Your task to perform on an android device: Open battery settings Image 0: 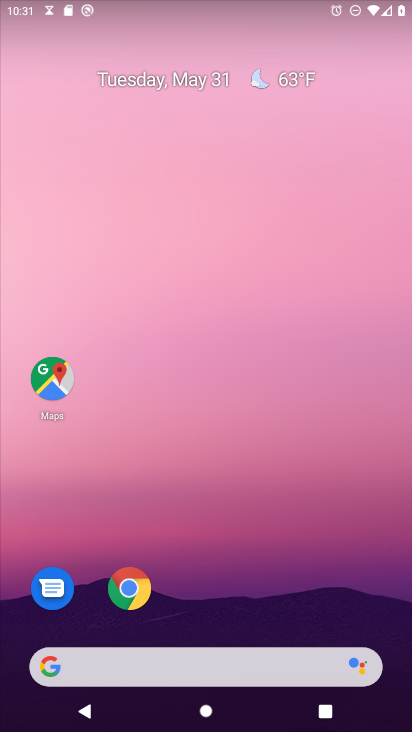
Step 0: drag from (286, 591) to (253, 26)
Your task to perform on an android device: Open battery settings Image 1: 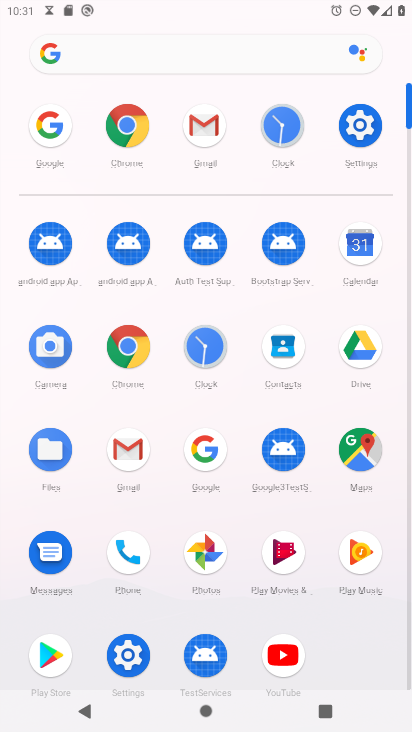
Step 1: click (360, 125)
Your task to perform on an android device: Open battery settings Image 2: 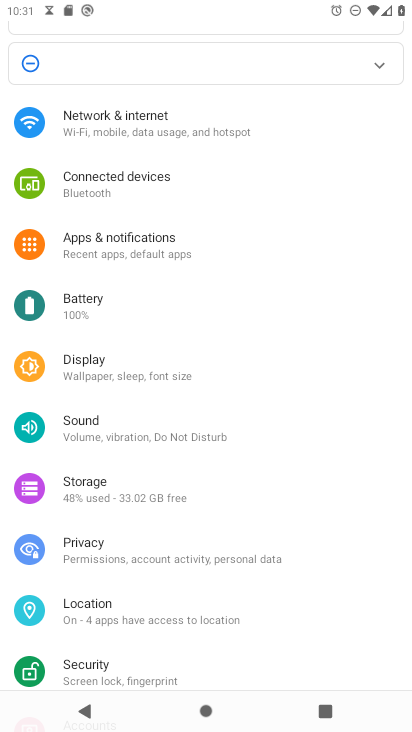
Step 2: click (94, 305)
Your task to perform on an android device: Open battery settings Image 3: 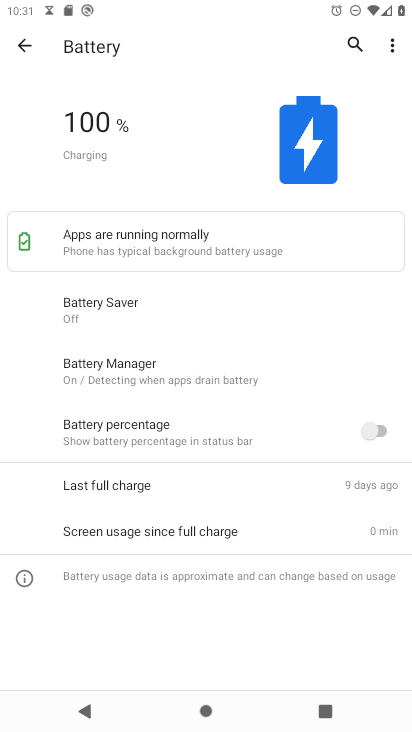
Step 3: task complete